Your task to perform on an android device: open app "Life360: Find Family & Friends" Image 0: 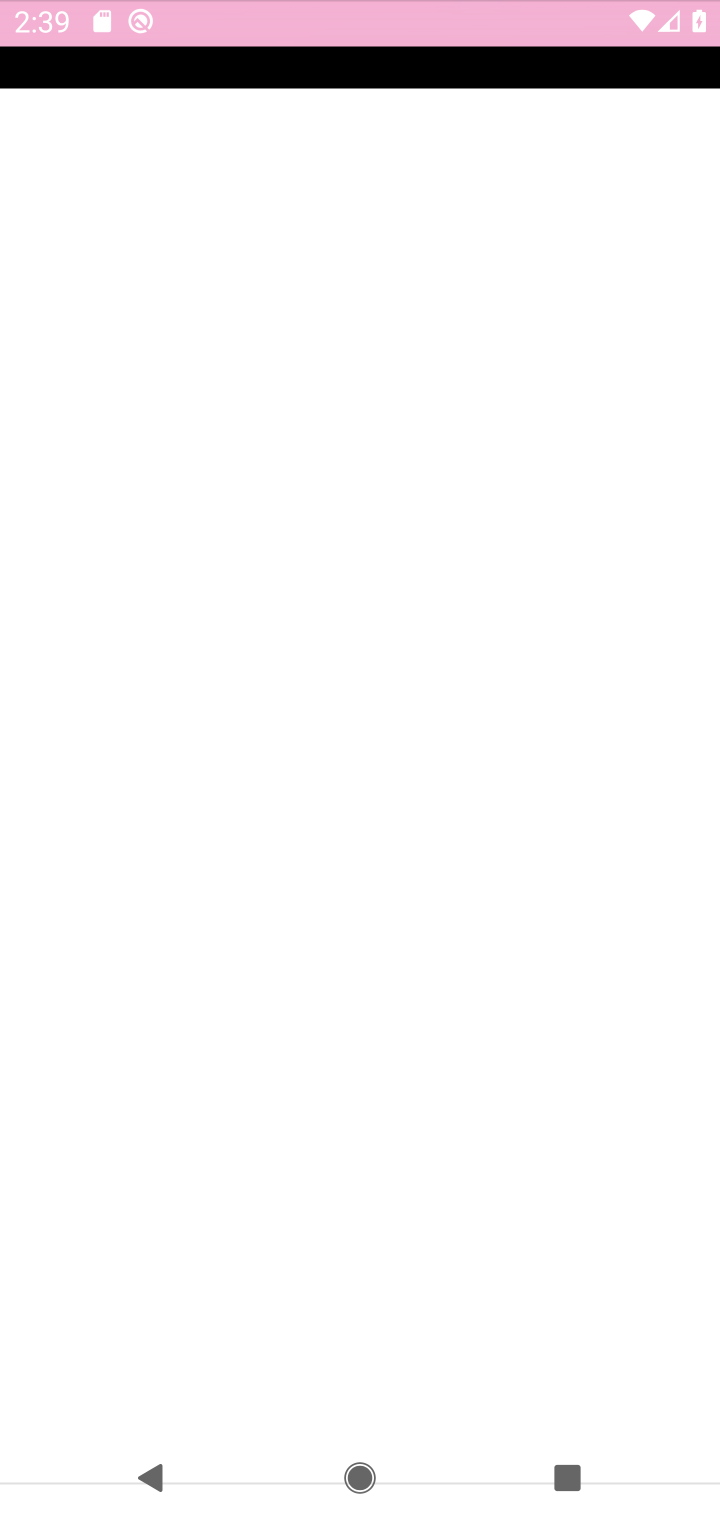
Step 0: press home button
Your task to perform on an android device: open app "Life360: Find Family & Friends" Image 1: 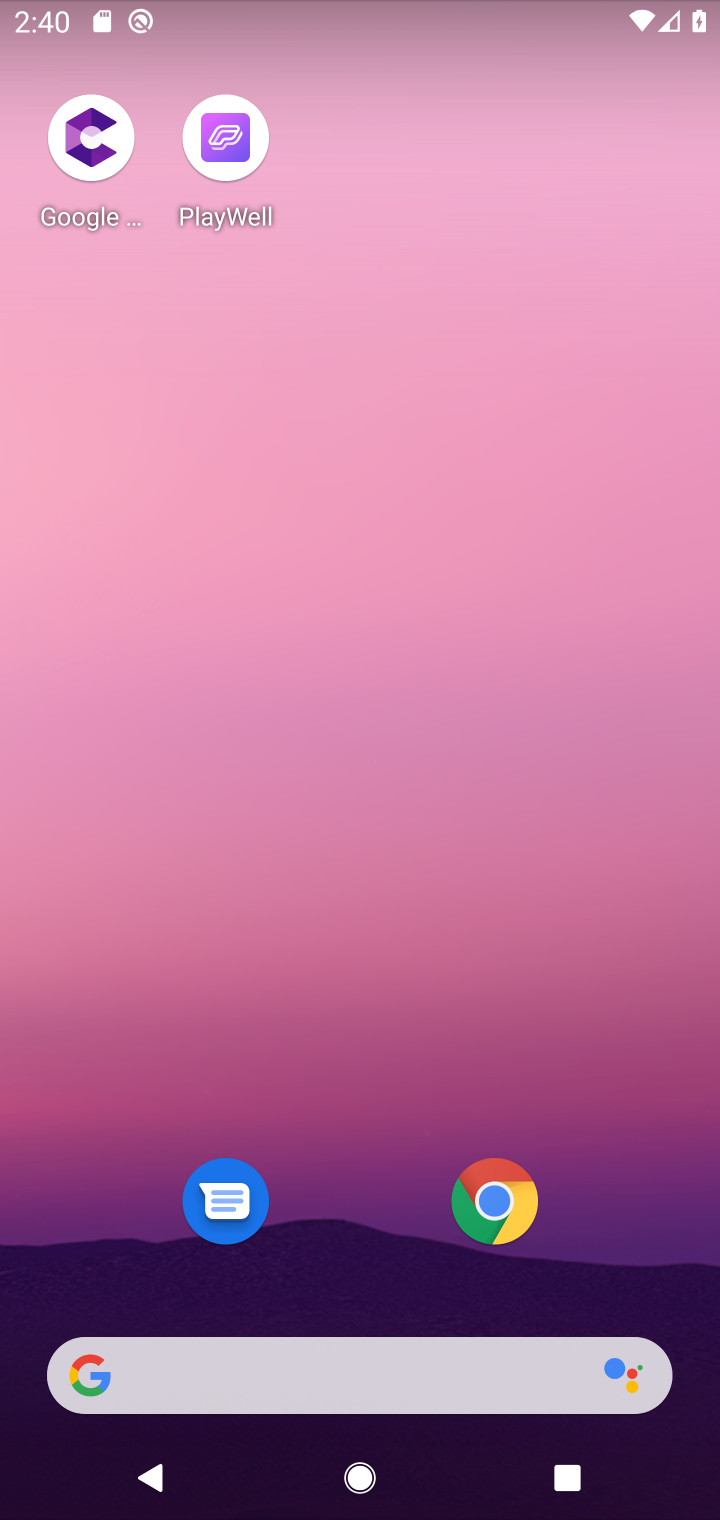
Step 1: drag from (615, 1262) to (586, 76)
Your task to perform on an android device: open app "Life360: Find Family & Friends" Image 2: 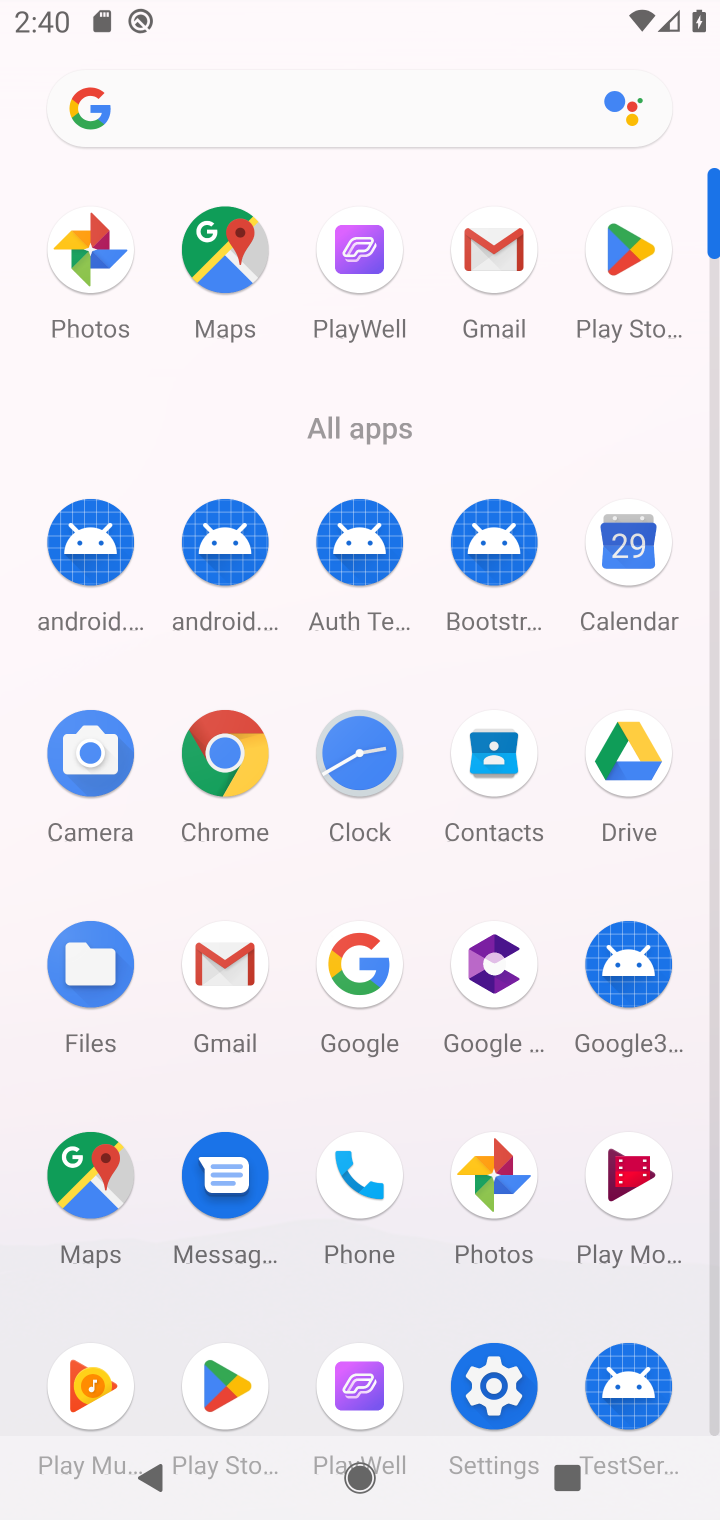
Step 2: click (613, 316)
Your task to perform on an android device: open app "Life360: Find Family & Friends" Image 3: 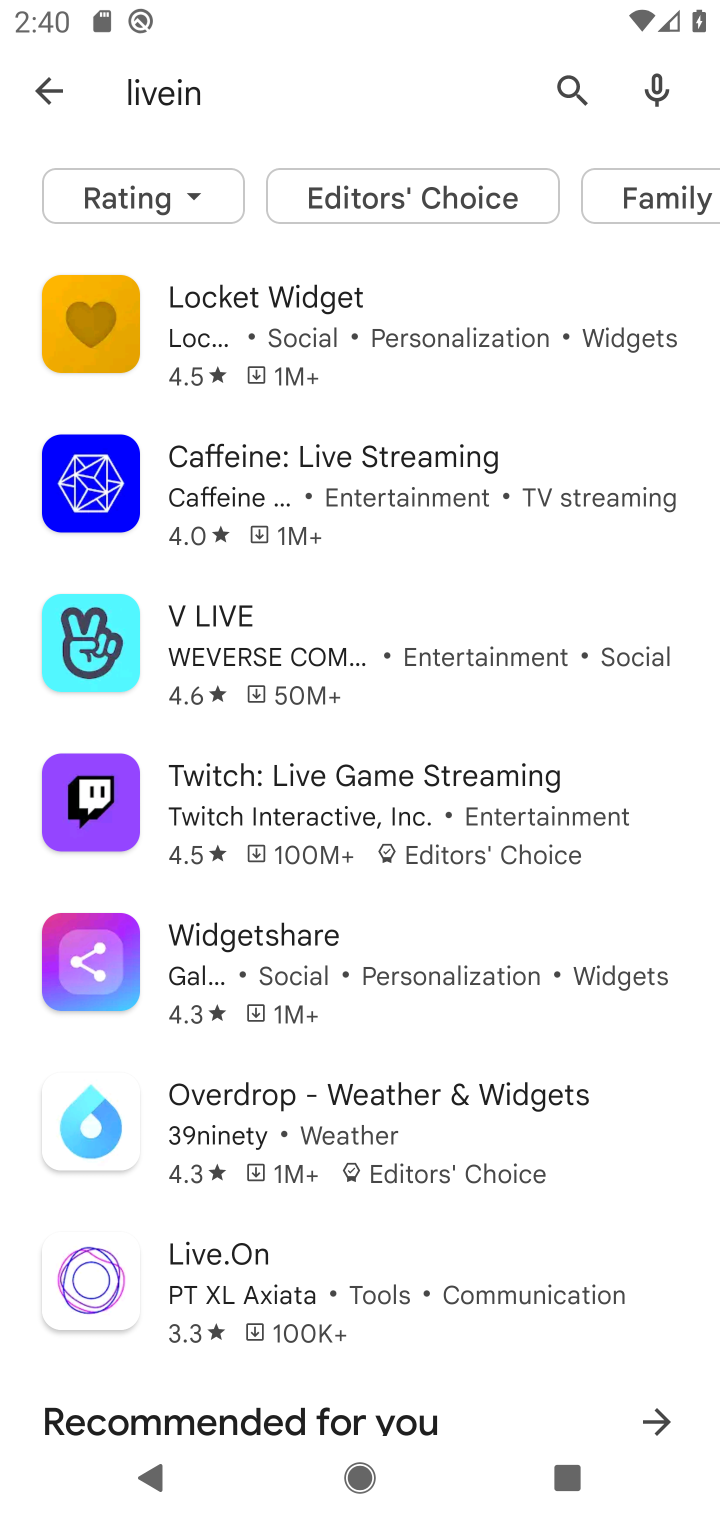
Step 3: click (571, 81)
Your task to perform on an android device: open app "Life360: Find Family & Friends" Image 4: 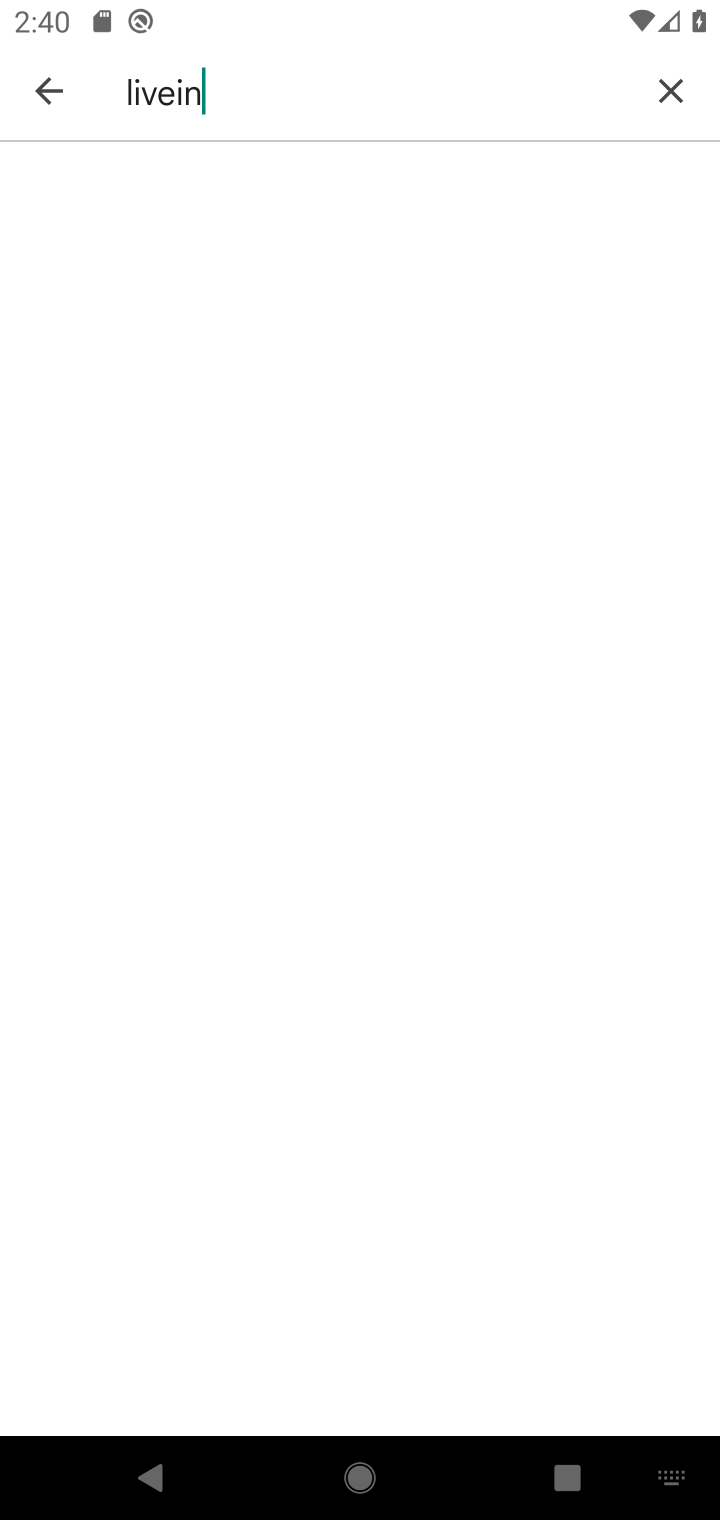
Step 4: click (666, 78)
Your task to perform on an android device: open app "Life360: Find Family & Friends" Image 5: 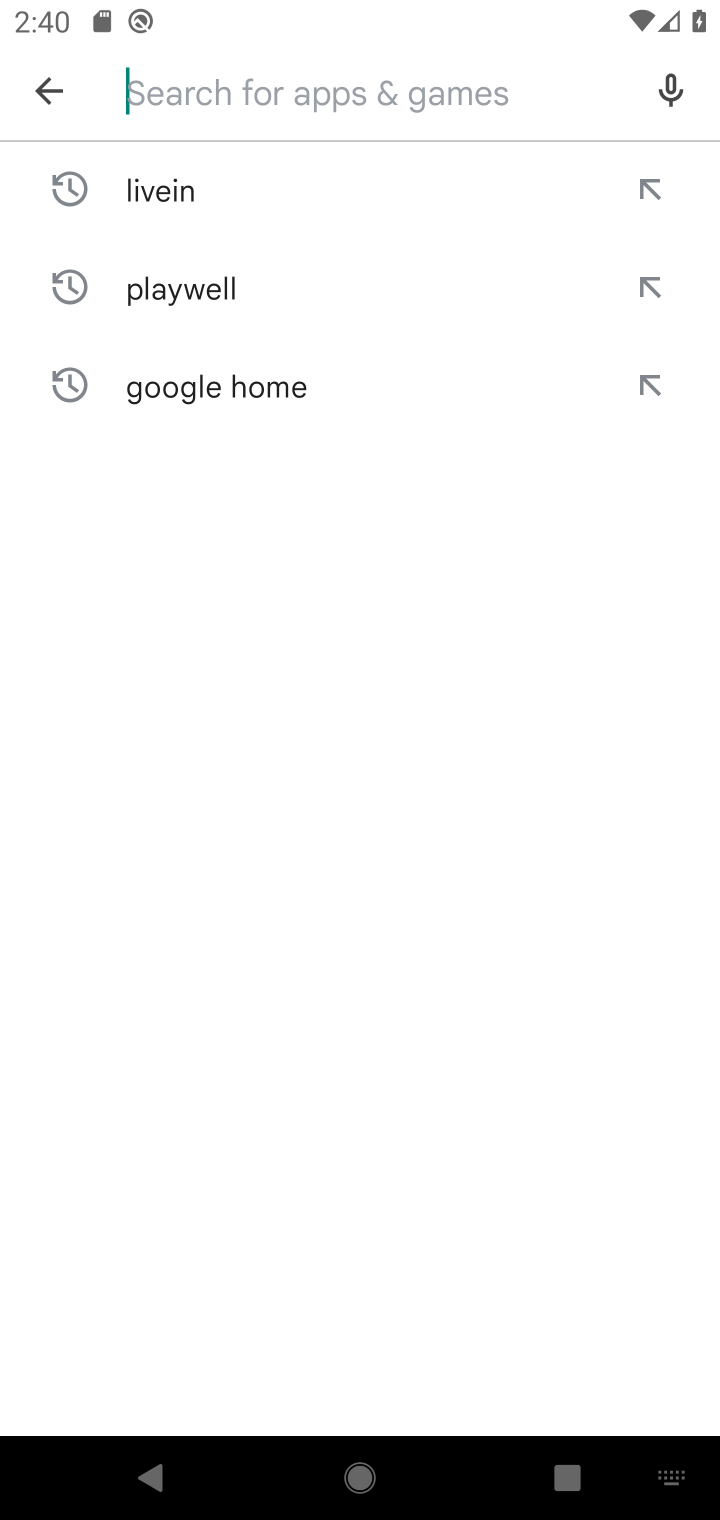
Step 5: type "Life360: Find Family & Friends""
Your task to perform on an android device: open app "Life360: Find Family & Friends" Image 6: 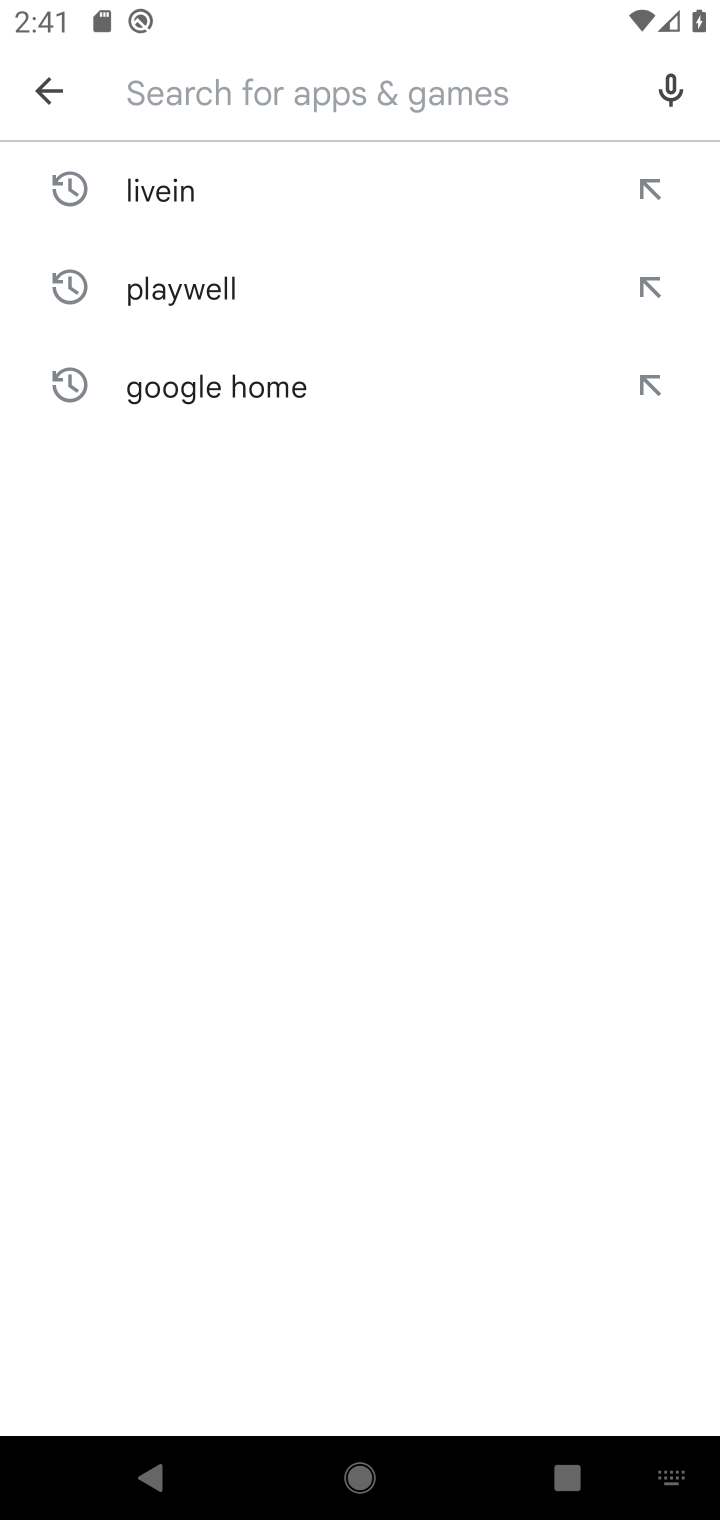
Step 6: type "life360 find family & friends"
Your task to perform on an android device: open app "Life360: Find Family & Friends" Image 7: 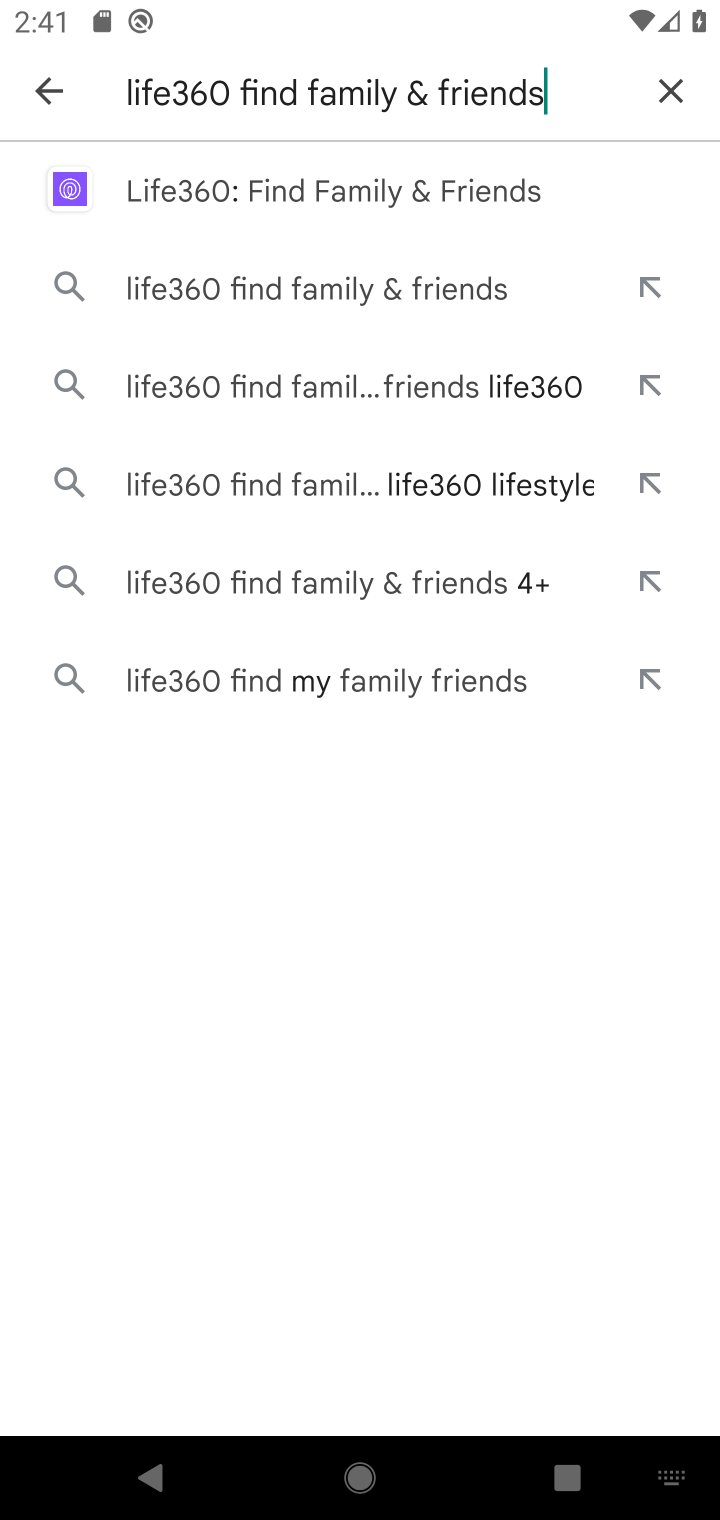
Step 7: click (97, 213)
Your task to perform on an android device: open app "Life360: Find Family & Friends" Image 8: 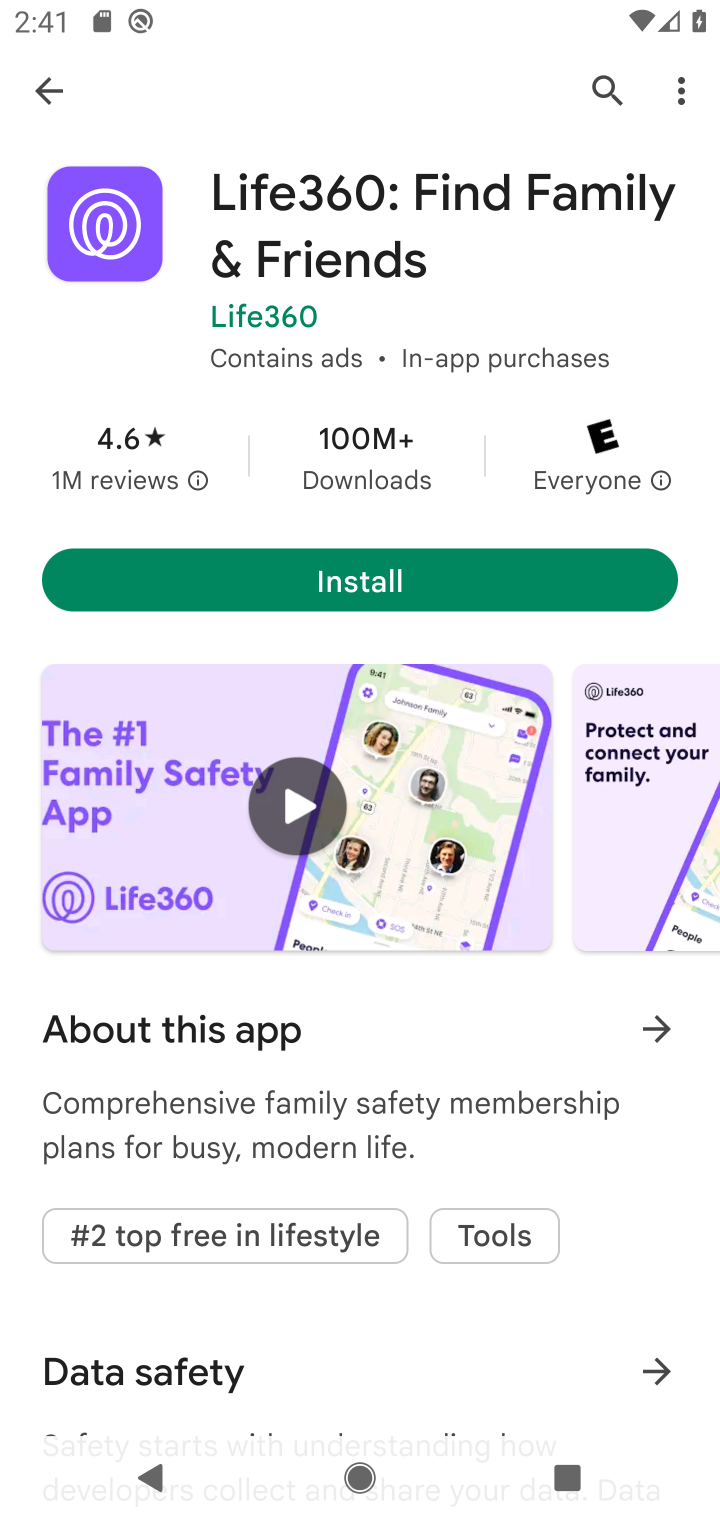
Step 8: click (263, 564)
Your task to perform on an android device: open app "Life360: Find Family & Friends" Image 9: 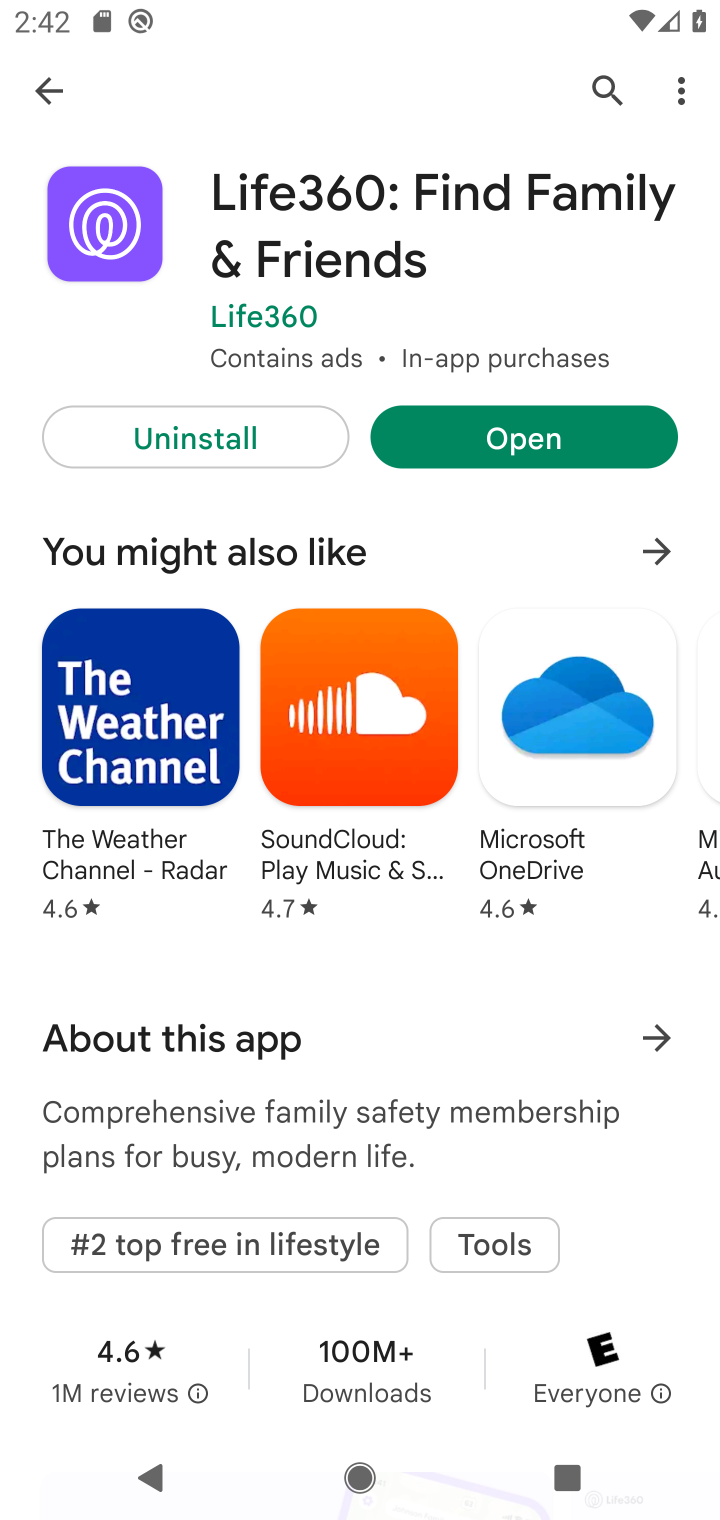
Step 9: click (480, 427)
Your task to perform on an android device: open app "Life360: Find Family & Friends" Image 10: 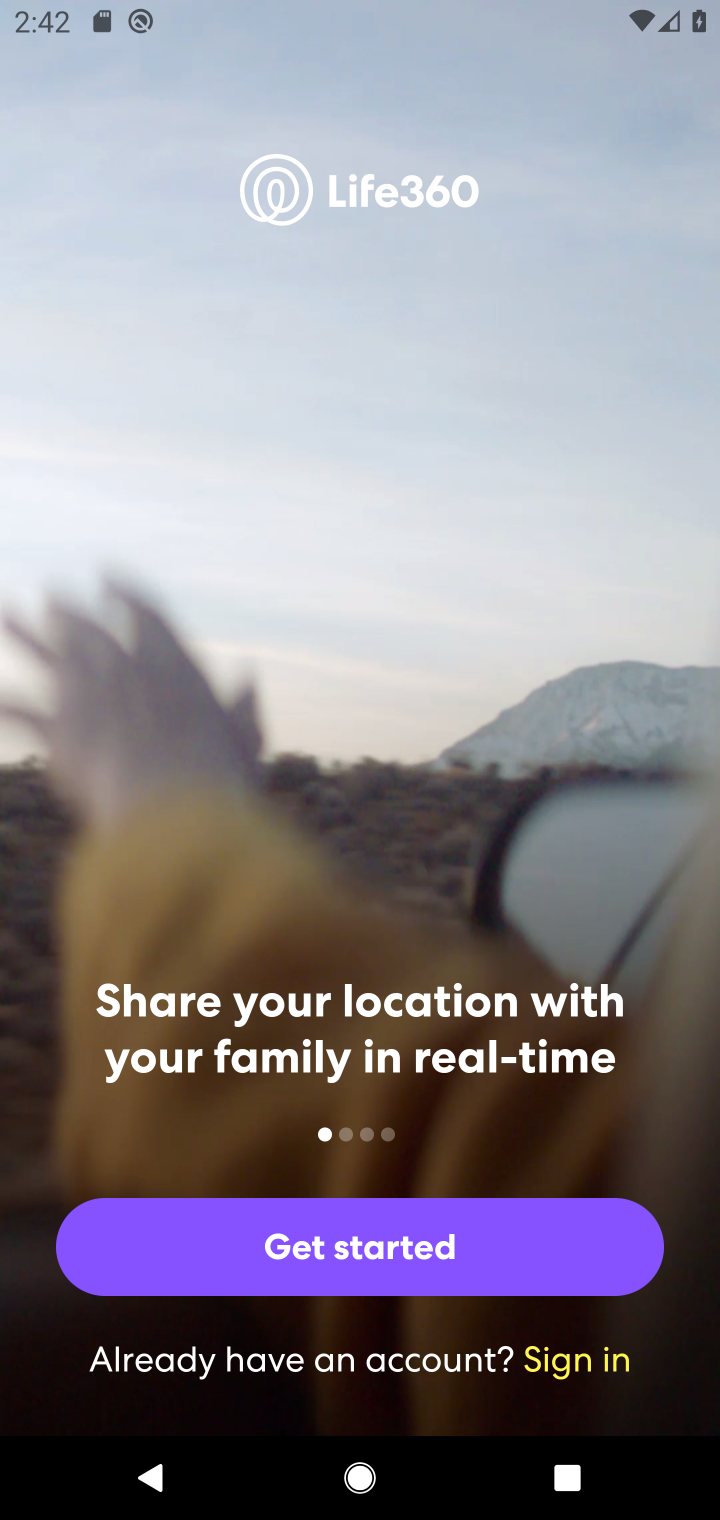
Step 10: task complete